Your task to perform on an android device: Go to battery settings Image 0: 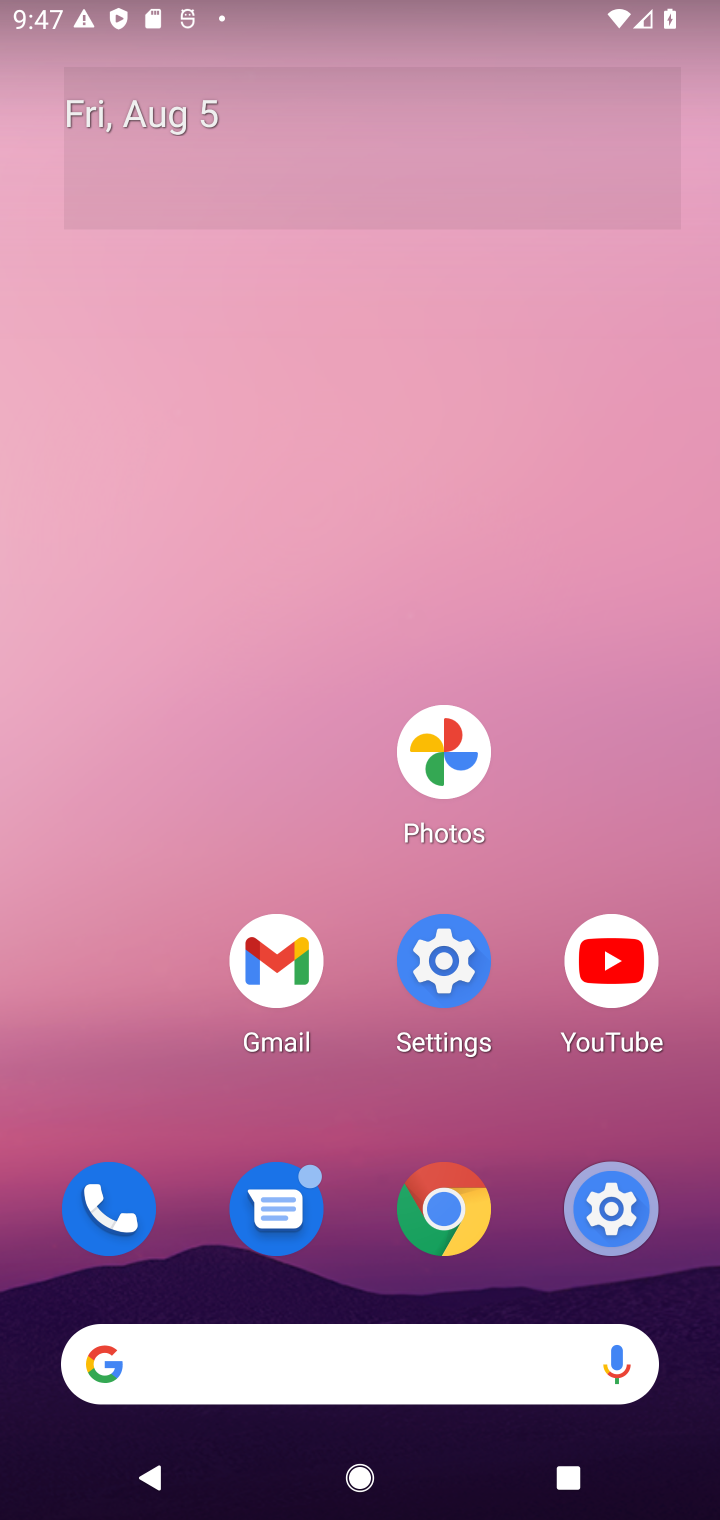
Step 0: drag from (183, 939) to (318, 4)
Your task to perform on an android device: Go to battery settings Image 1: 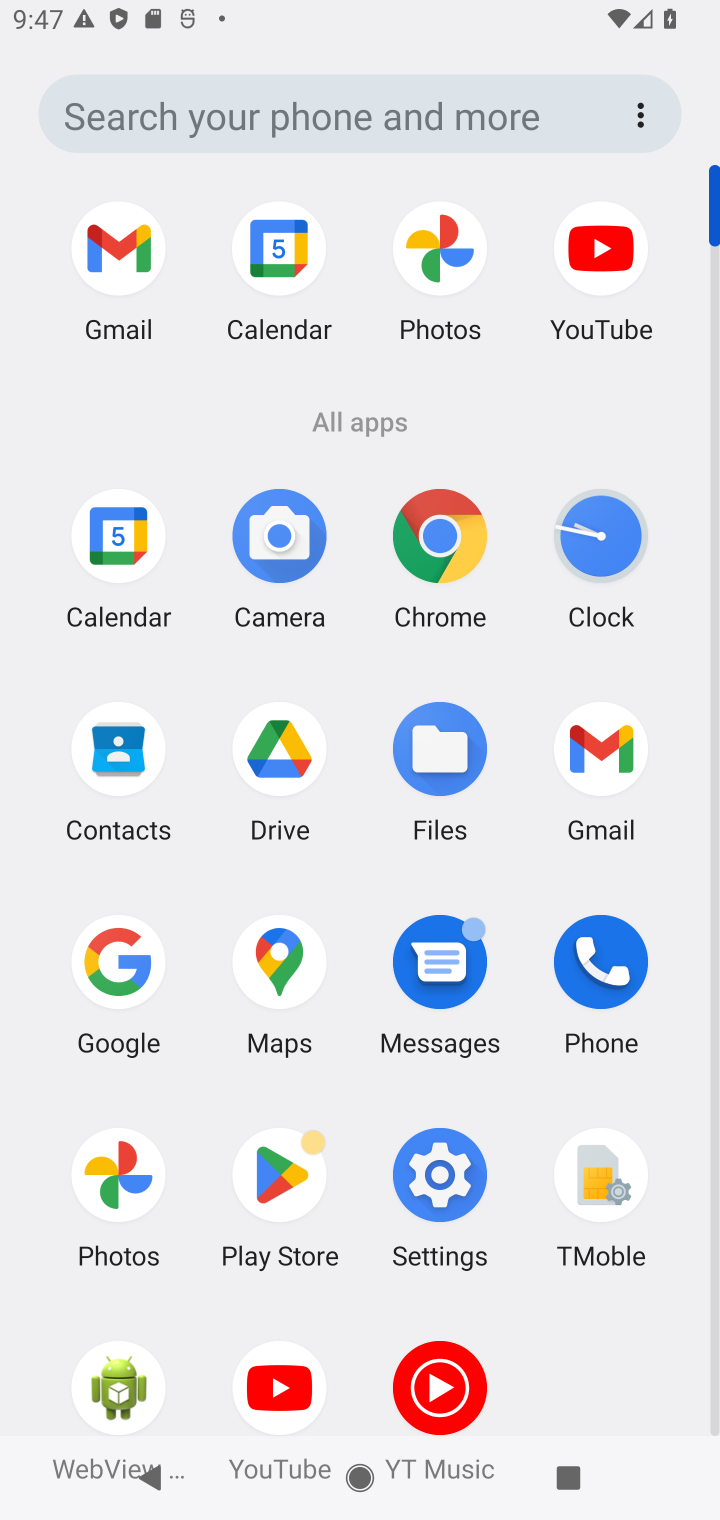
Step 1: click (426, 1183)
Your task to perform on an android device: Go to battery settings Image 2: 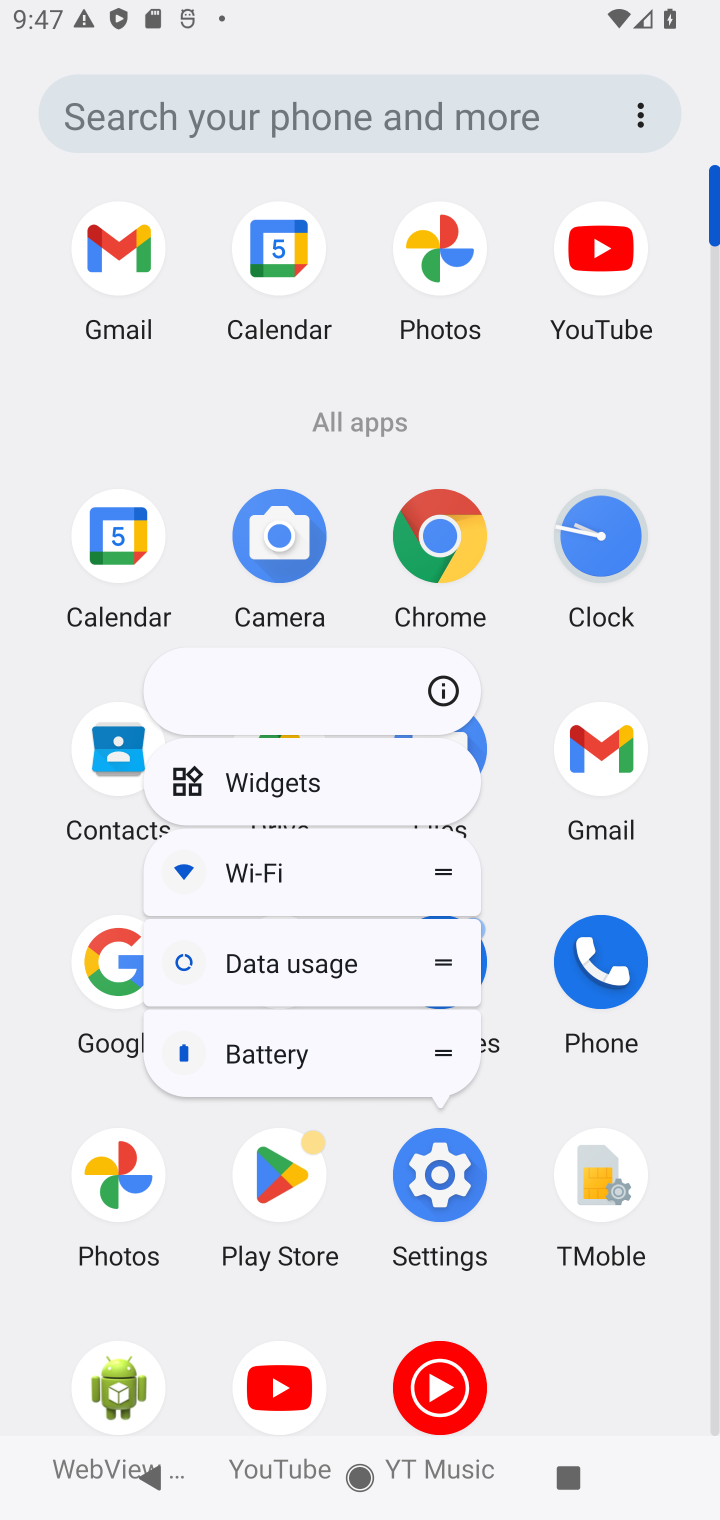
Step 2: click (434, 692)
Your task to perform on an android device: Go to battery settings Image 3: 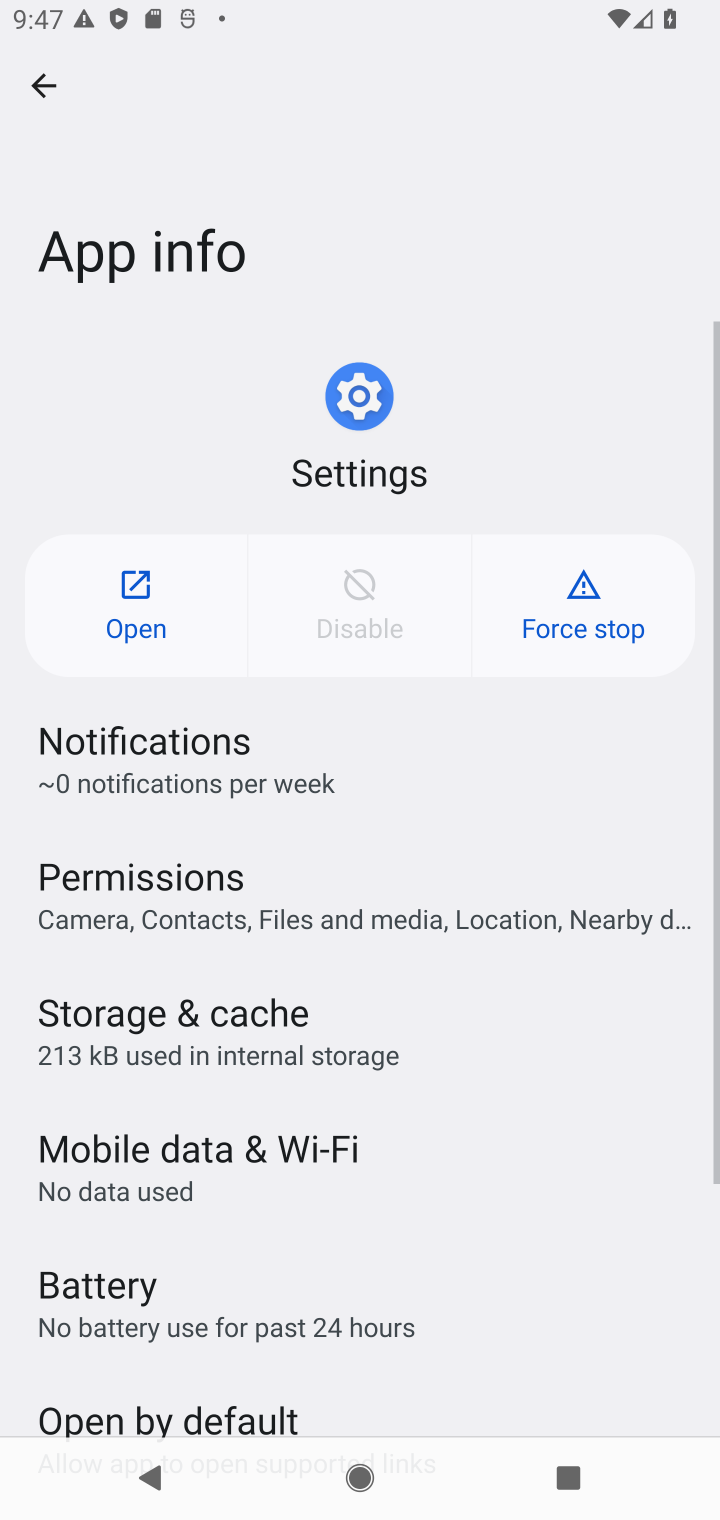
Step 3: click (134, 612)
Your task to perform on an android device: Go to battery settings Image 4: 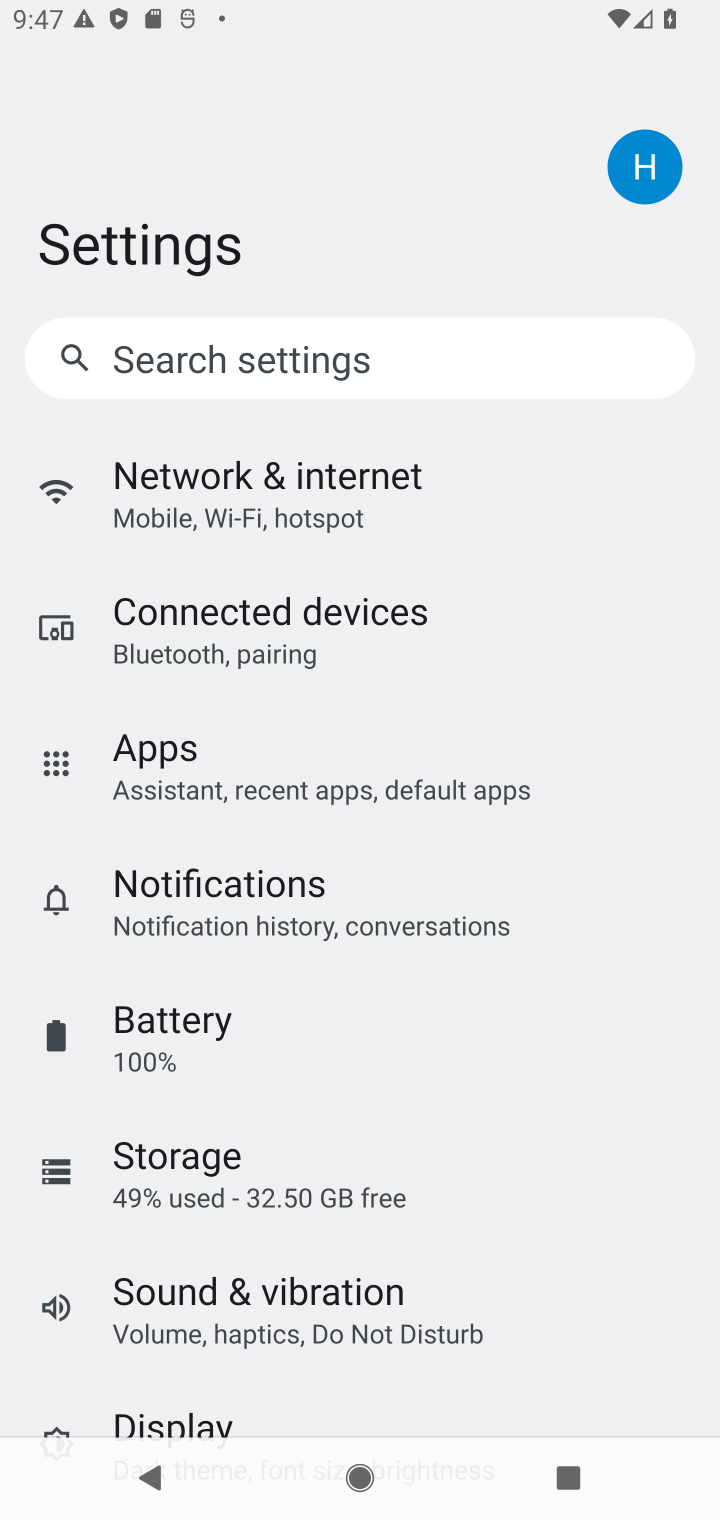
Step 4: click (198, 1045)
Your task to perform on an android device: Go to battery settings Image 5: 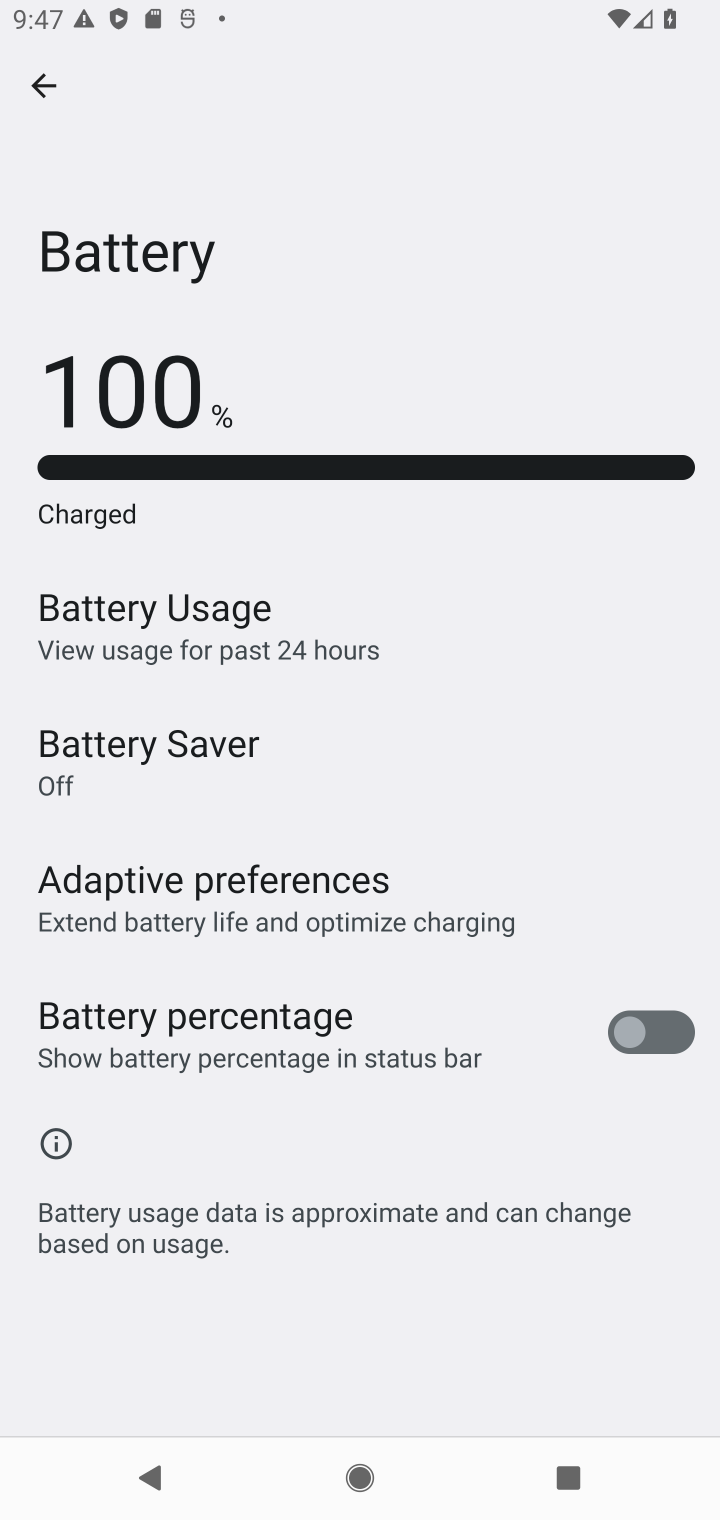
Step 5: task complete